Your task to perform on an android device: toggle javascript in the chrome app Image 0: 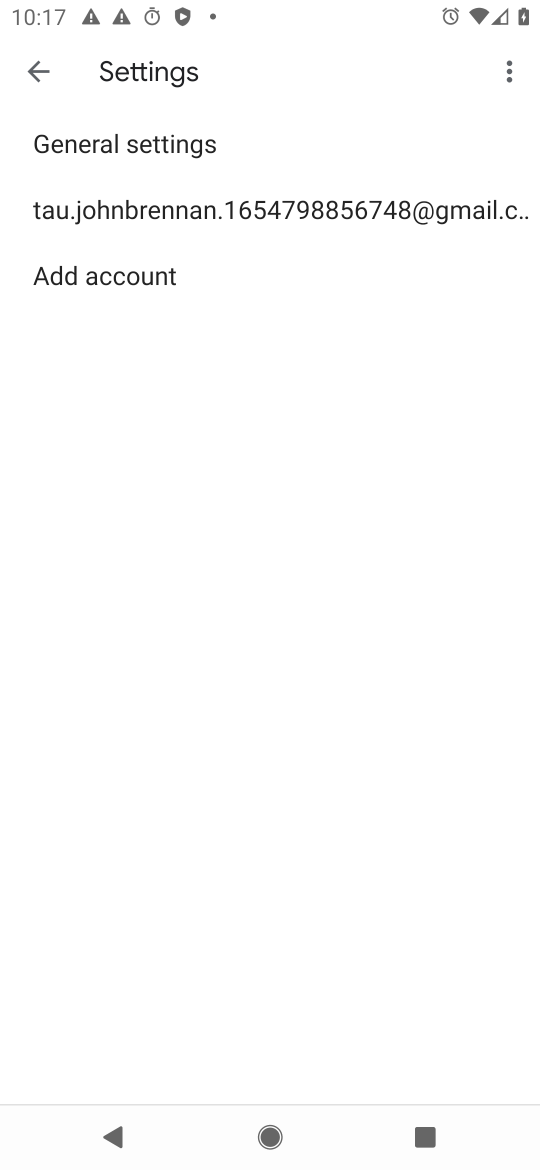
Step 0: drag from (249, 720) to (293, 420)
Your task to perform on an android device: toggle javascript in the chrome app Image 1: 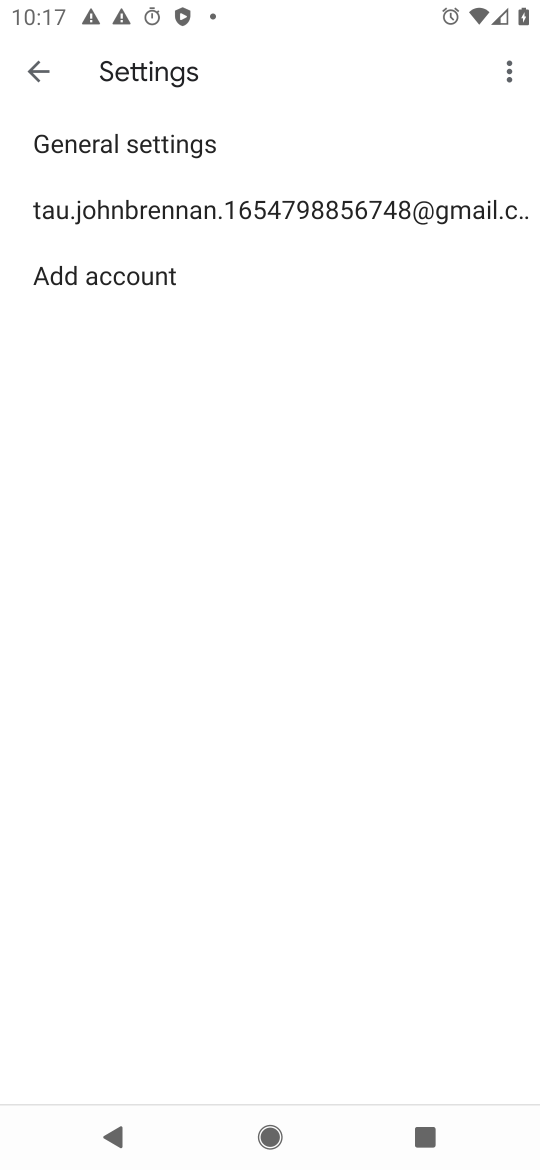
Step 1: press home button
Your task to perform on an android device: toggle javascript in the chrome app Image 2: 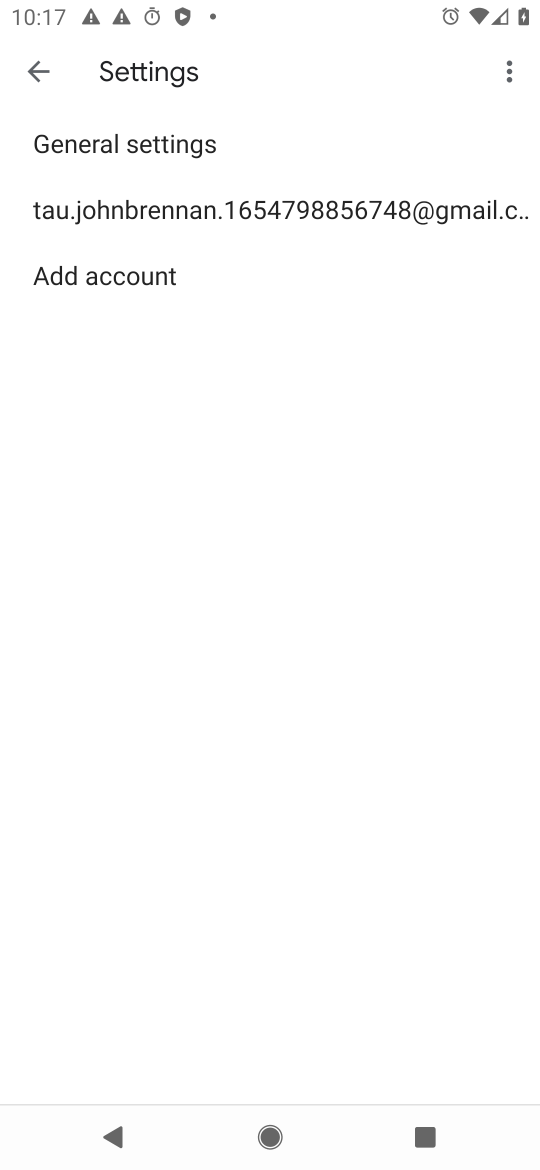
Step 2: press home button
Your task to perform on an android device: toggle javascript in the chrome app Image 3: 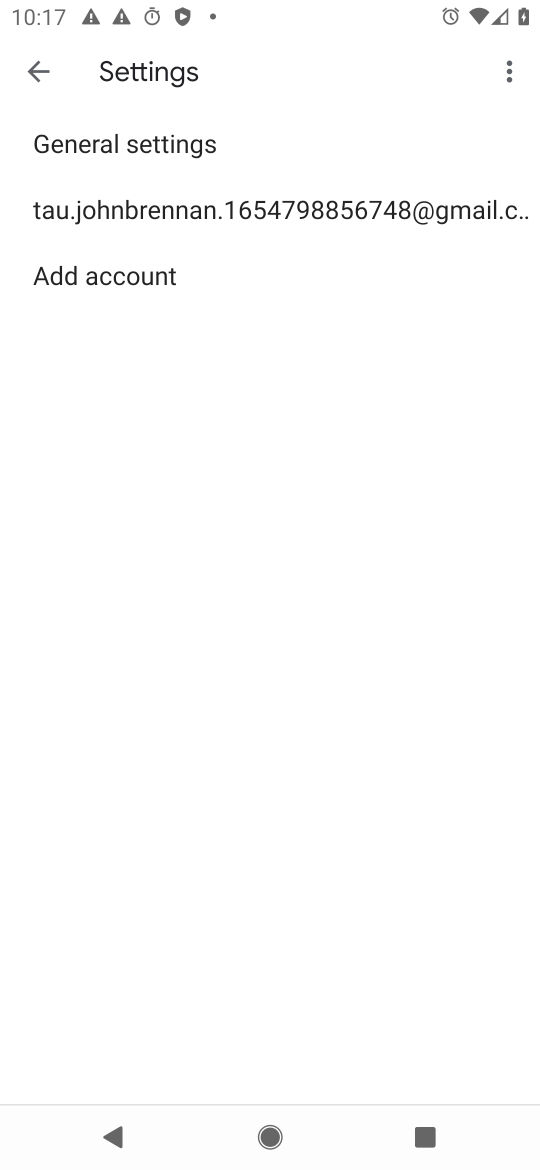
Step 3: click (356, 307)
Your task to perform on an android device: toggle javascript in the chrome app Image 4: 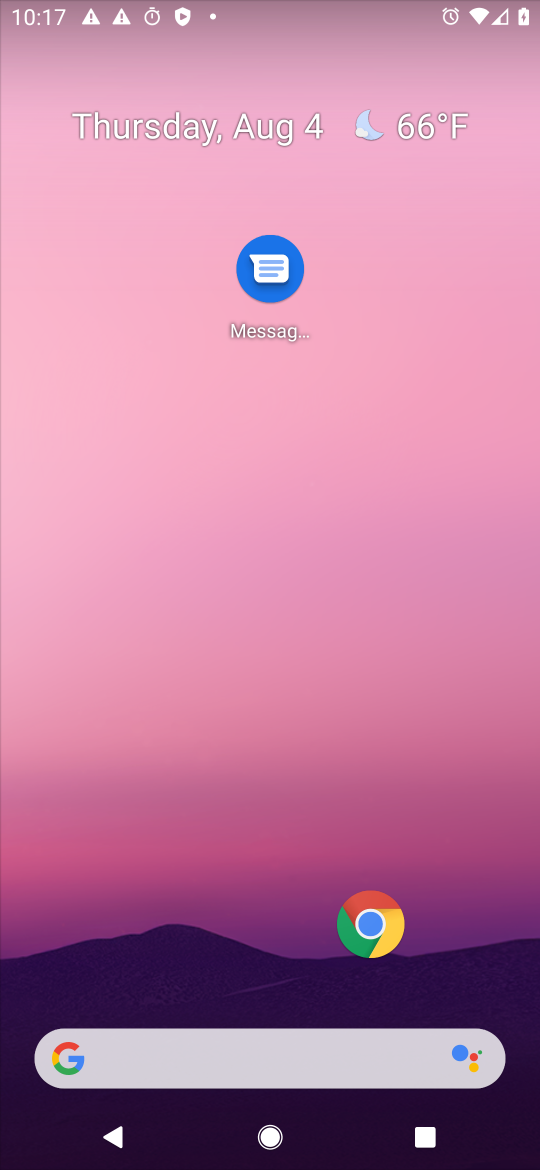
Step 4: drag from (255, 862) to (309, 143)
Your task to perform on an android device: toggle javascript in the chrome app Image 5: 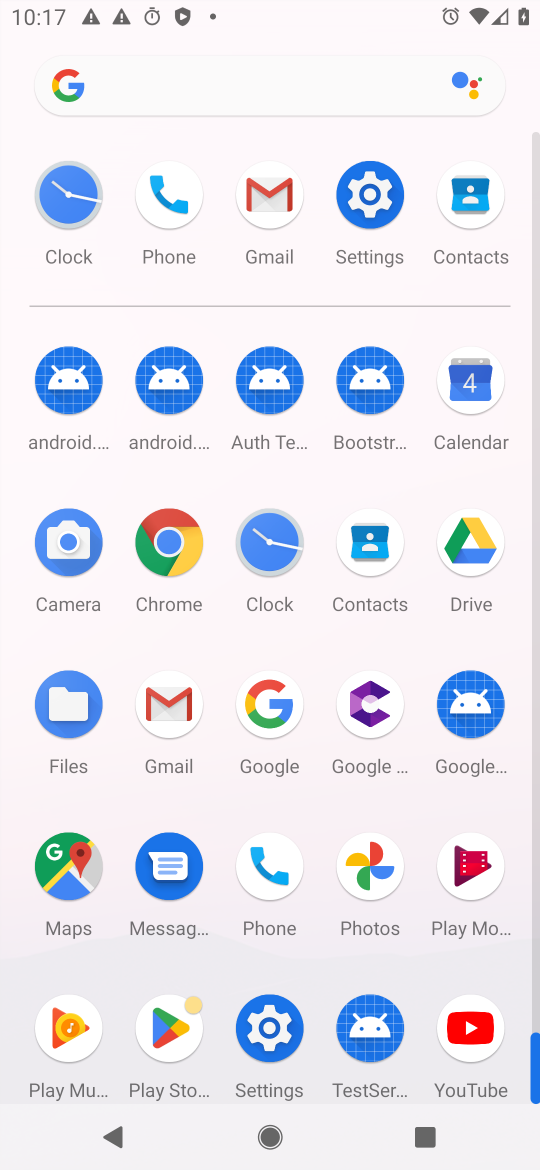
Step 5: click (168, 517)
Your task to perform on an android device: toggle javascript in the chrome app Image 6: 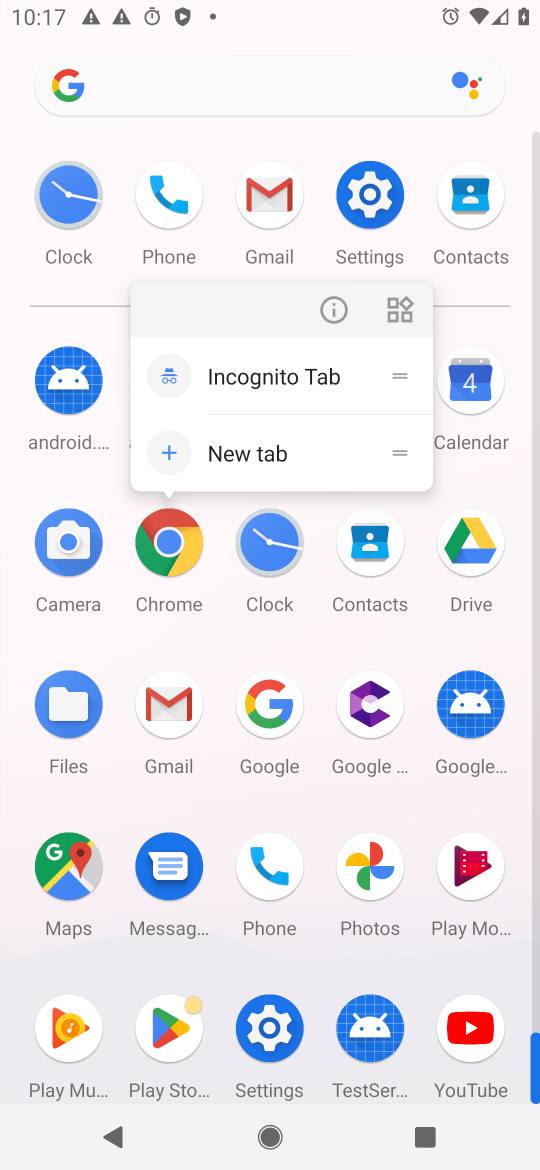
Step 6: click (327, 308)
Your task to perform on an android device: toggle javascript in the chrome app Image 7: 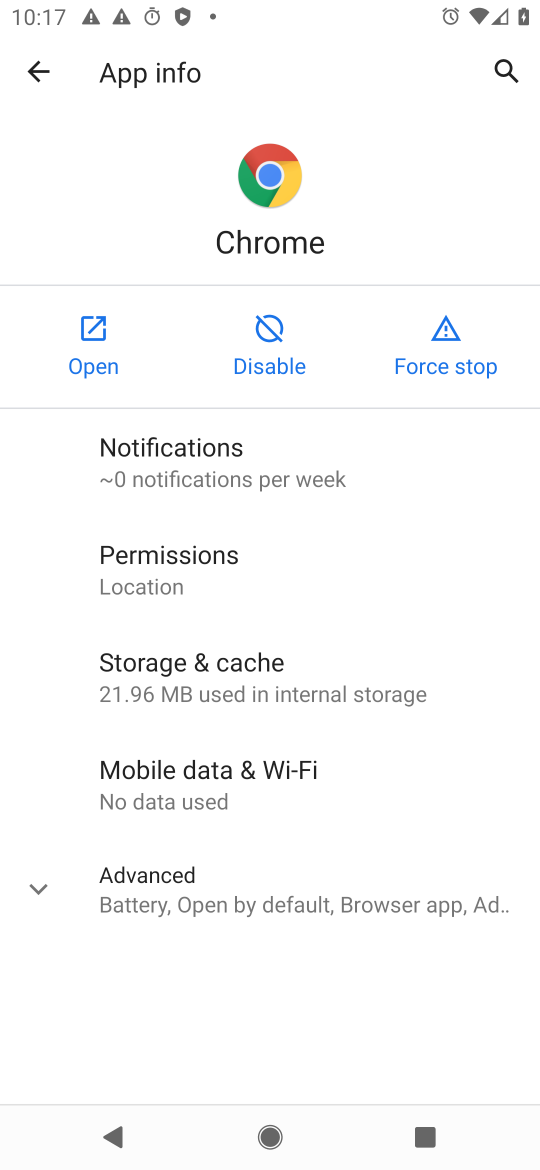
Step 7: click (91, 356)
Your task to perform on an android device: toggle javascript in the chrome app Image 8: 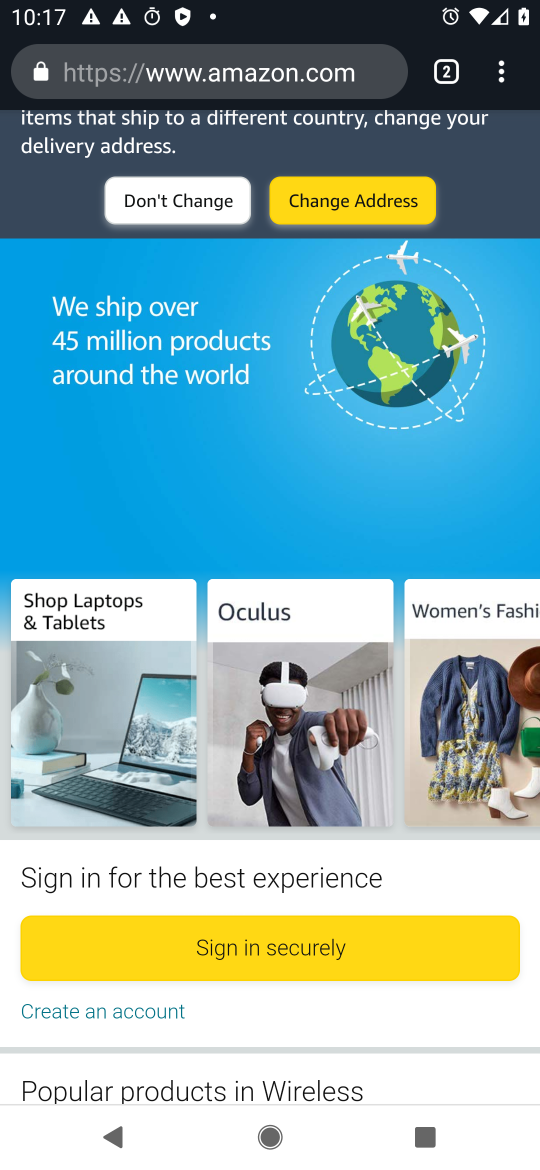
Step 8: drag from (249, 698) to (294, 299)
Your task to perform on an android device: toggle javascript in the chrome app Image 9: 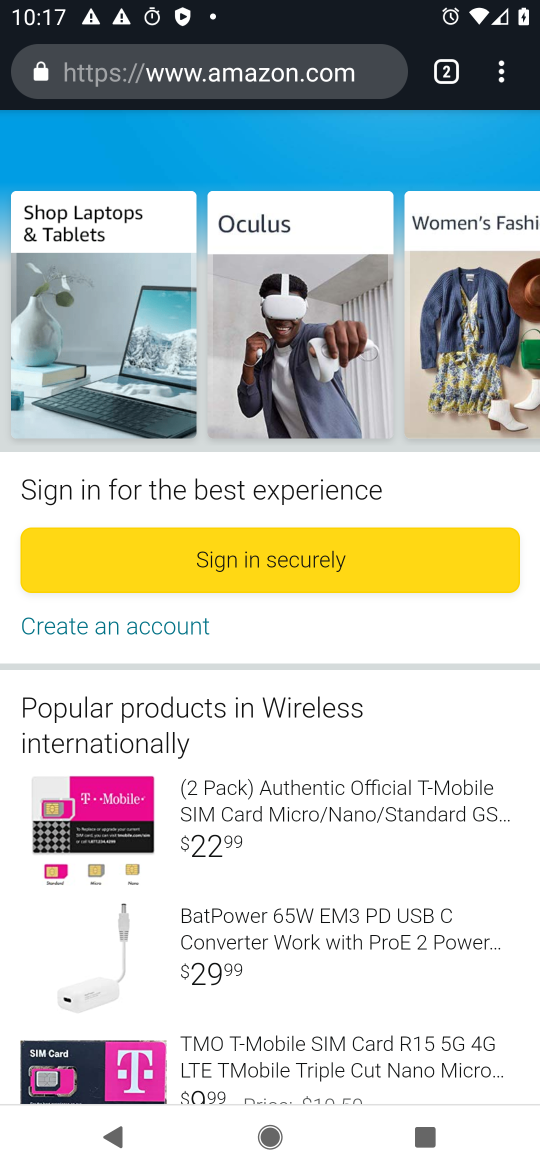
Step 9: drag from (279, 964) to (313, 444)
Your task to perform on an android device: toggle javascript in the chrome app Image 10: 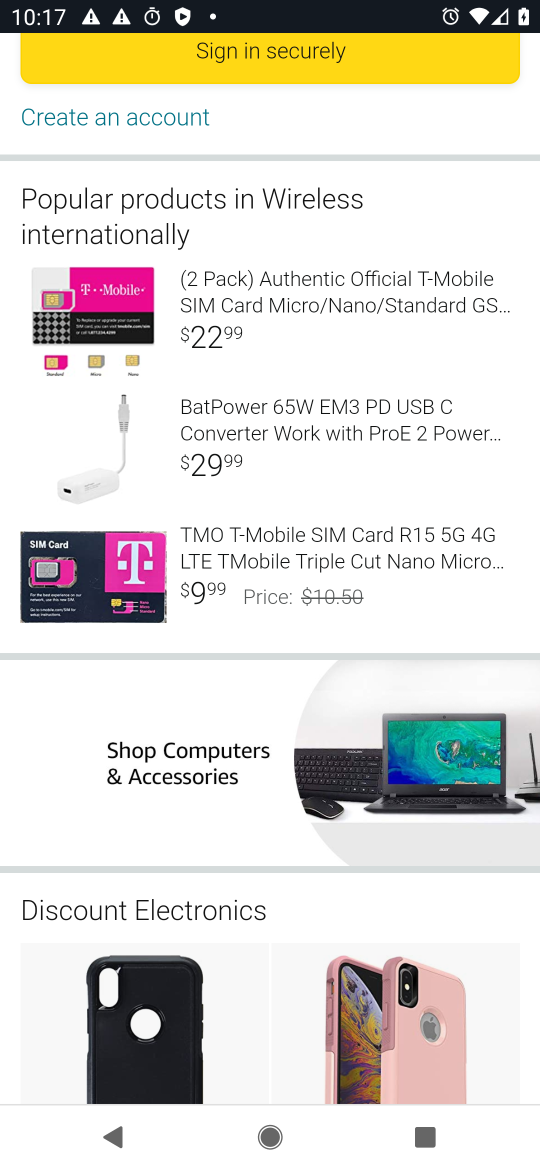
Step 10: drag from (202, 861) to (283, 618)
Your task to perform on an android device: toggle javascript in the chrome app Image 11: 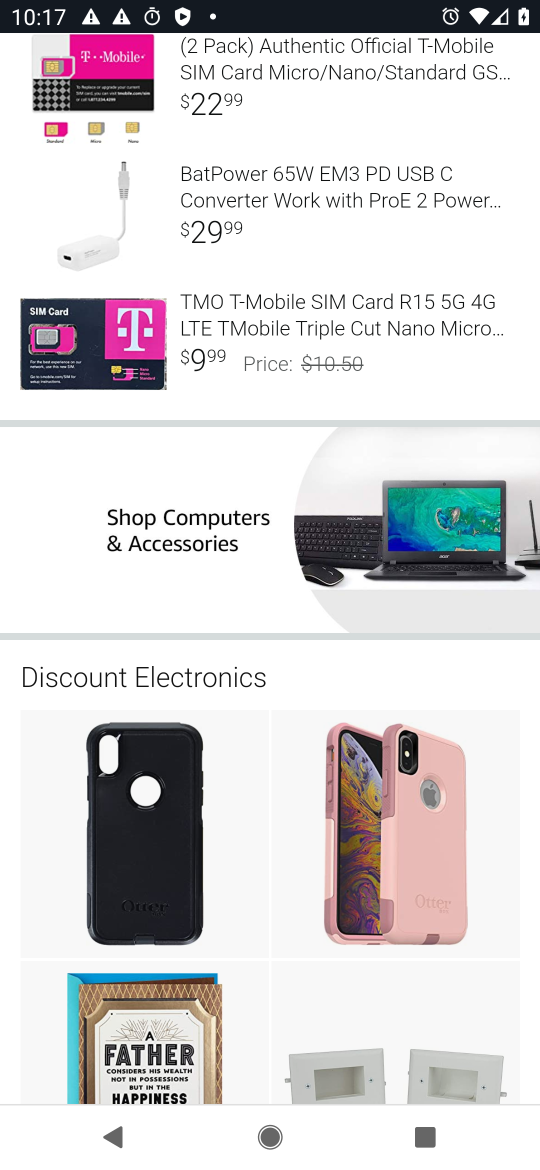
Step 11: drag from (288, 985) to (320, 528)
Your task to perform on an android device: toggle javascript in the chrome app Image 12: 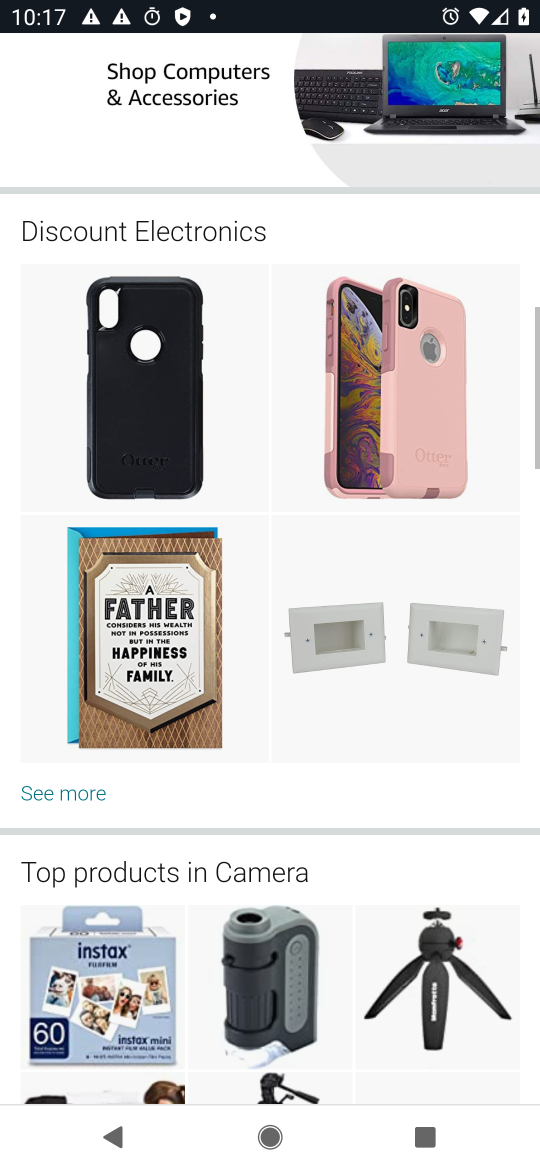
Step 12: drag from (317, 607) to (334, 1109)
Your task to perform on an android device: toggle javascript in the chrome app Image 13: 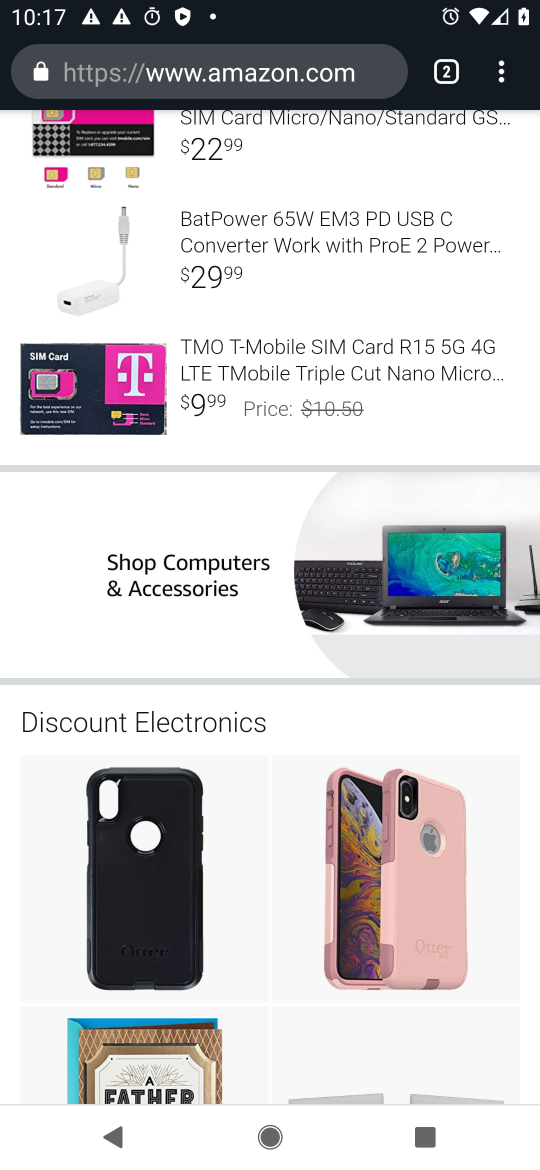
Step 13: drag from (282, 449) to (201, 1168)
Your task to perform on an android device: toggle javascript in the chrome app Image 14: 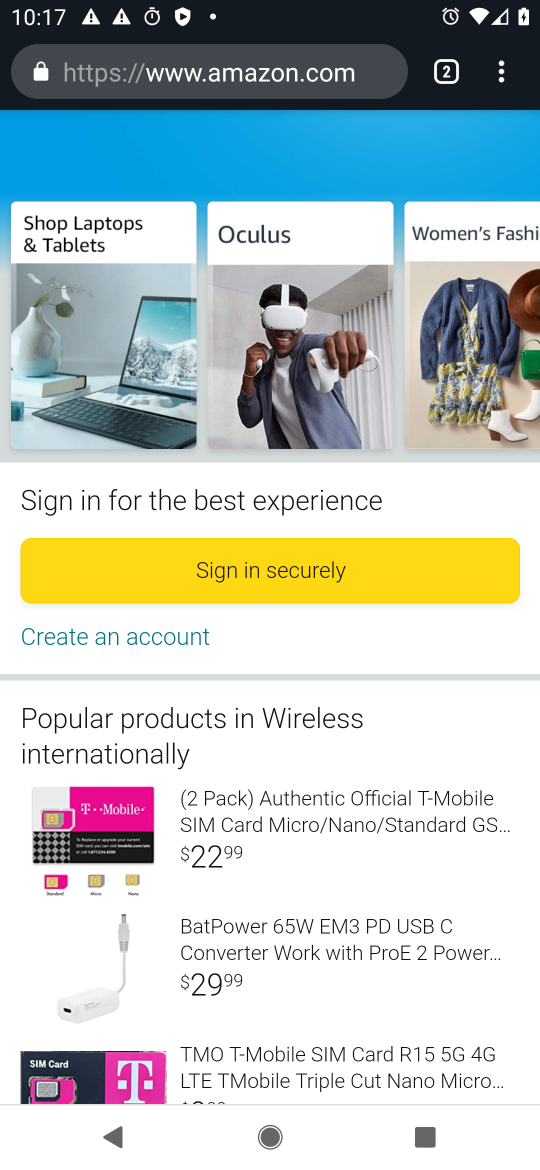
Step 14: drag from (503, 66) to (317, 864)
Your task to perform on an android device: toggle javascript in the chrome app Image 15: 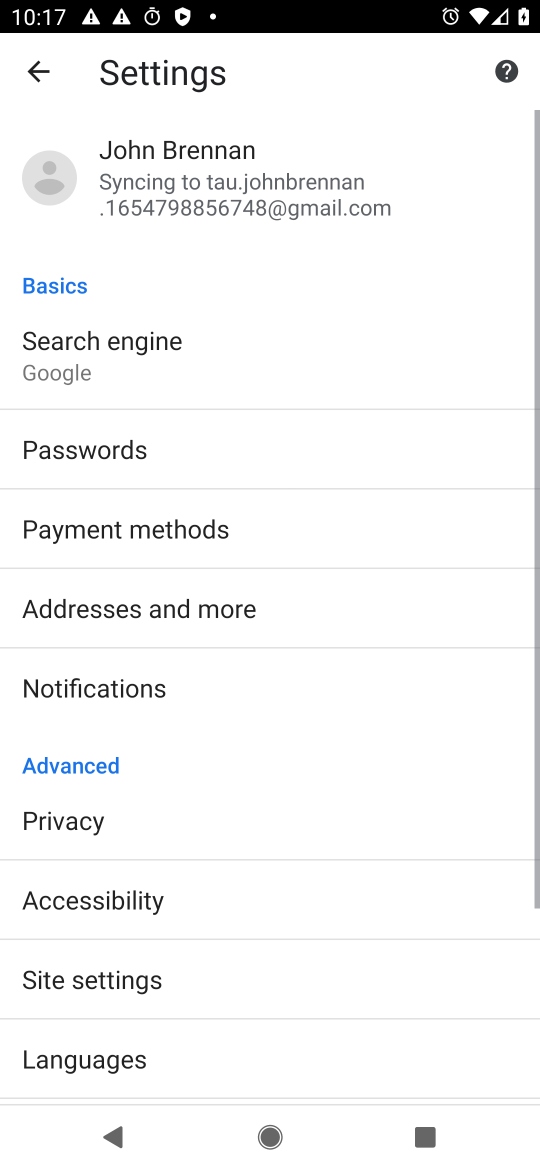
Step 15: drag from (158, 977) to (229, 434)
Your task to perform on an android device: toggle javascript in the chrome app Image 16: 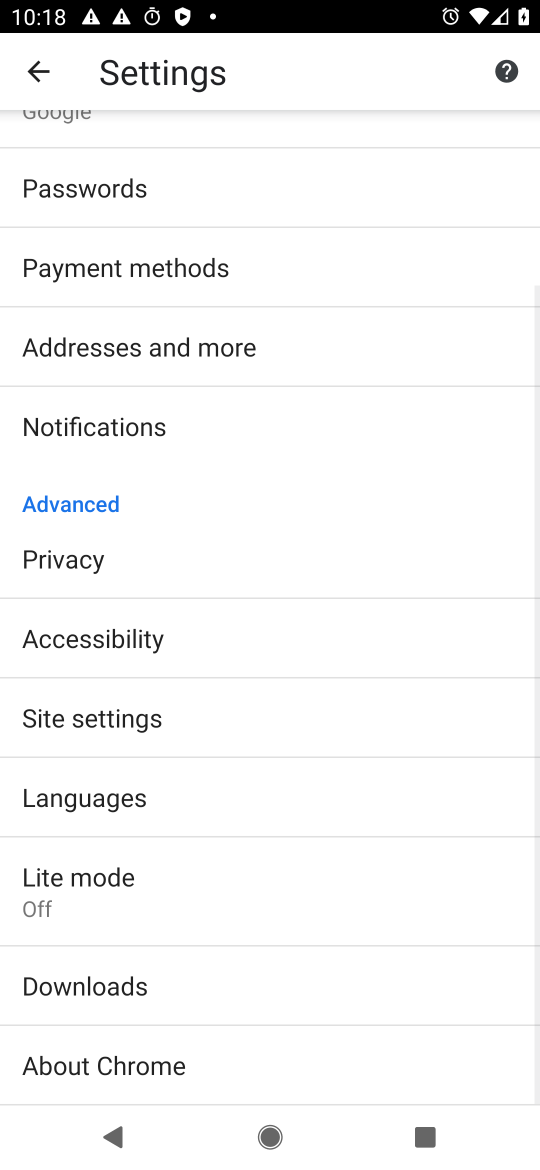
Step 16: click (64, 713)
Your task to perform on an android device: toggle javascript in the chrome app Image 17: 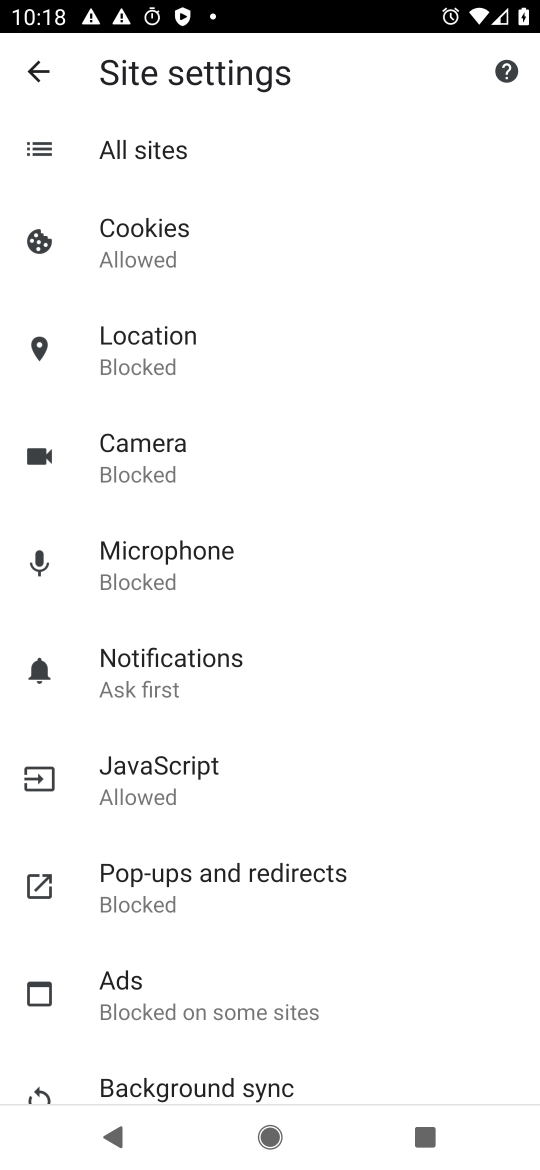
Step 17: click (237, 776)
Your task to perform on an android device: toggle javascript in the chrome app Image 18: 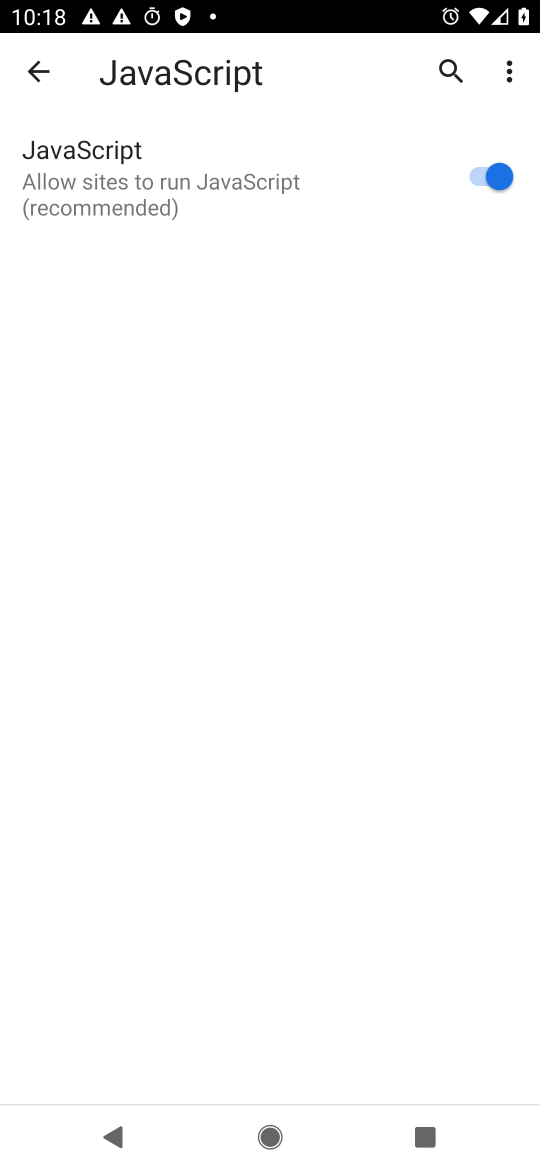
Step 18: click (483, 167)
Your task to perform on an android device: toggle javascript in the chrome app Image 19: 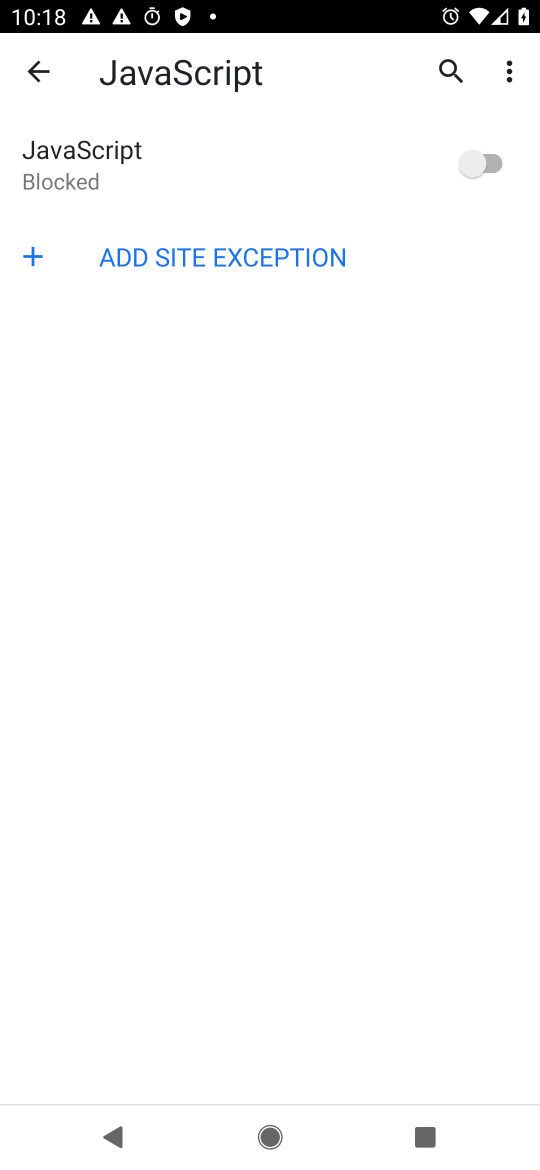
Step 19: task complete